Your task to perform on an android device: Search for hotels in Sydney Image 0: 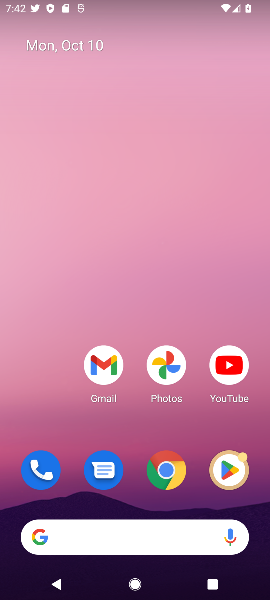
Step 0: click (156, 464)
Your task to perform on an android device: Search for hotels in Sydney Image 1: 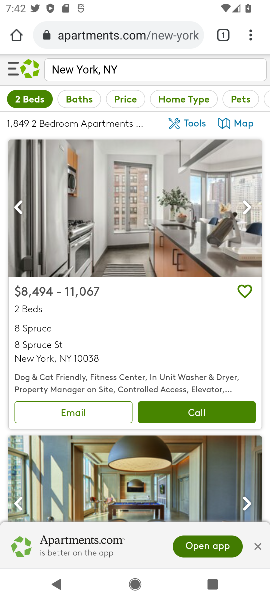
Step 1: click (221, 21)
Your task to perform on an android device: Search for hotels in Sydney Image 2: 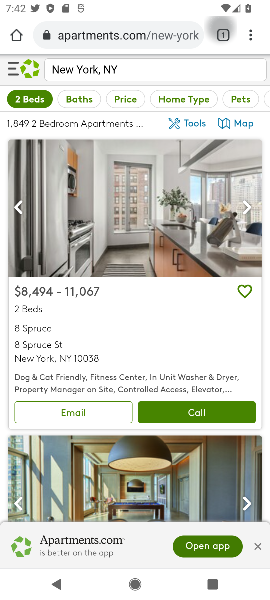
Step 2: click (169, 37)
Your task to perform on an android device: Search for hotels in Sydney Image 3: 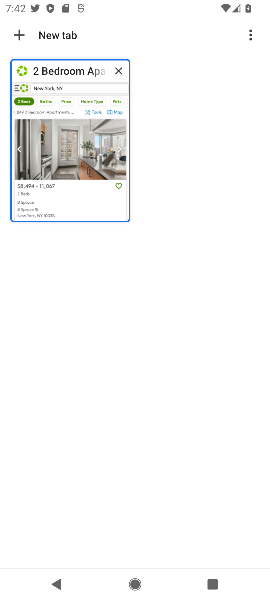
Step 3: click (54, 67)
Your task to perform on an android device: Search for hotels in Sydney Image 4: 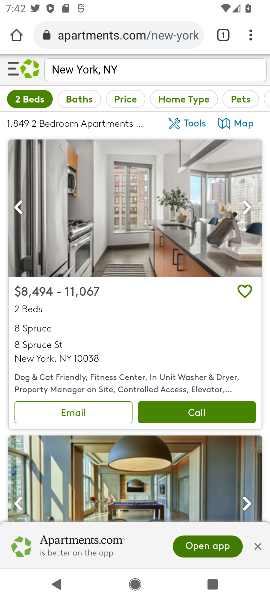
Step 4: click (114, 42)
Your task to perform on an android device: Search for hotels in Sydney Image 5: 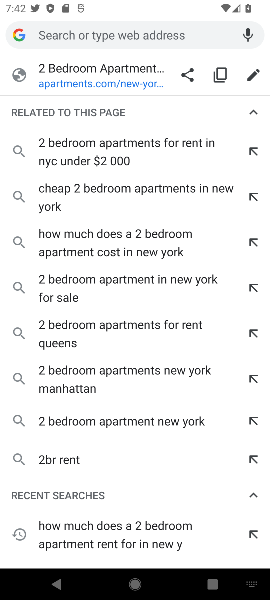
Step 5: type "Search for hotels in Sydney"
Your task to perform on an android device: Search for hotels in Sydney Image 6: 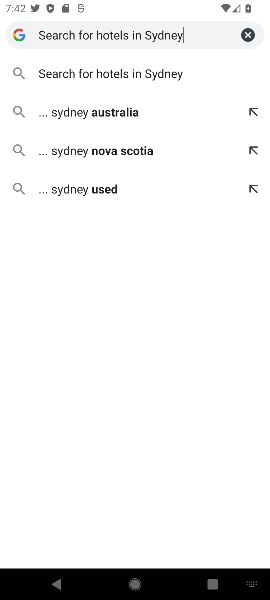
Step 6: click (79, 72)
Your task to perform on an android device: Search for hotels in Sydney Image 7: 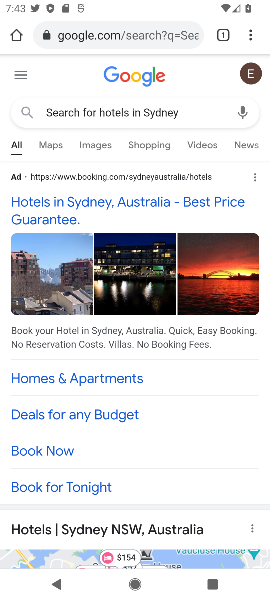
Step 7: click (55, 195)
Your task to perform on an android device: Search for hotels in Sydney Image 8: 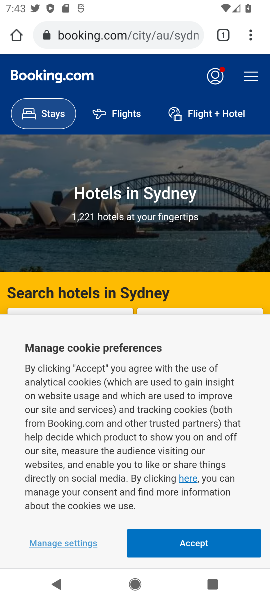
Step 8: task complete